Your task to perform on an android device: Go to location settings Image 0: 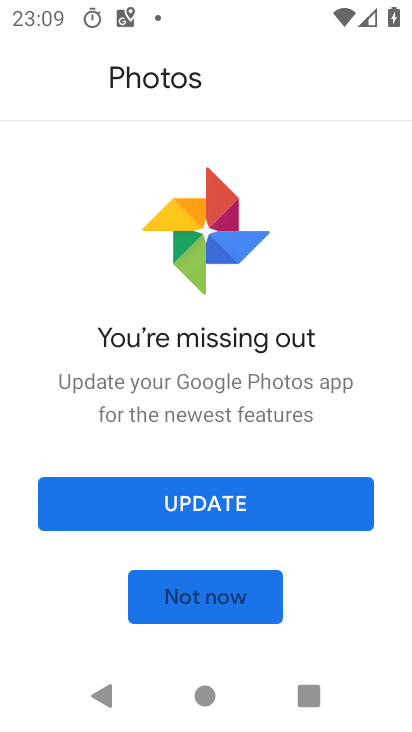
Step 0: press back button
Your task to perform on an android device: Go to location settings Image 1: 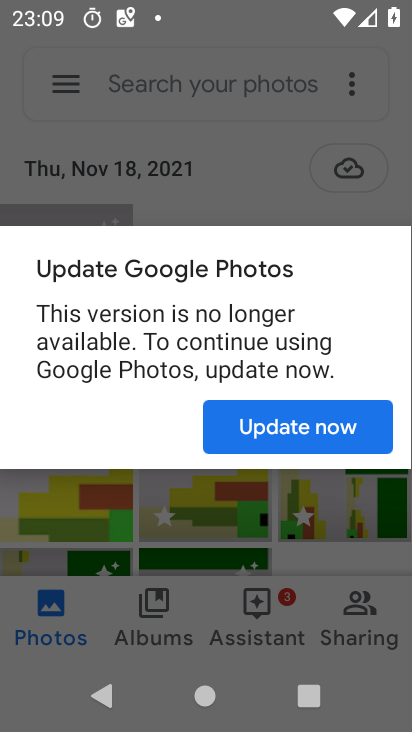
Step 1: click (297, 422)
Your task to perform on an android device: Go to location settings Image 2: 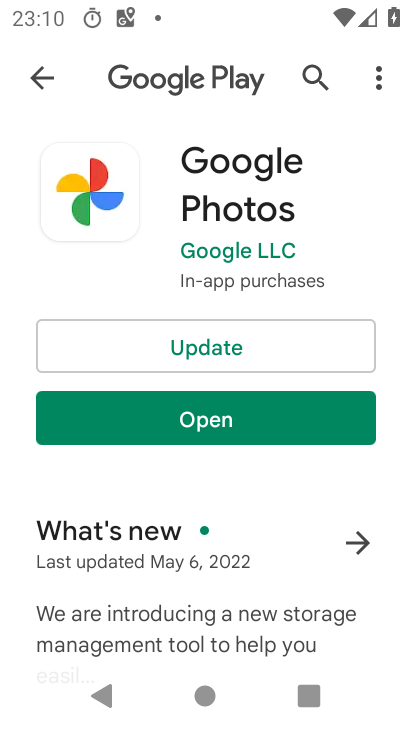
Step 2: click (218, 345)
Your task to perform on an android device: Go to location settings Image 3: 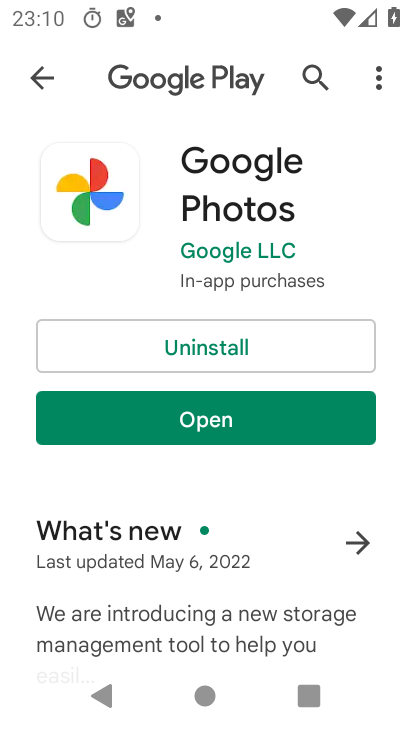
Step 3: press home button
Your task to perform on an android device: Go to location settings Image 4: 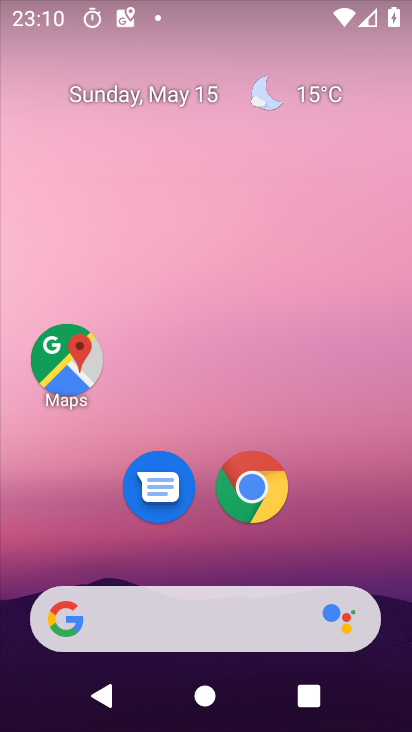
Step 4: click (371, 303)
Your task to perform on an android device: Go to location settings Image 5: 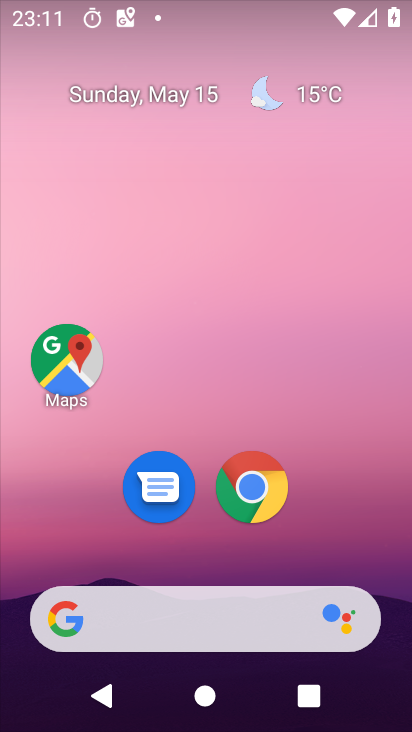
Step 5: drag from (400, 649) to (360, 312)
Your task to perform on an android device: Go to location settings Image 6: 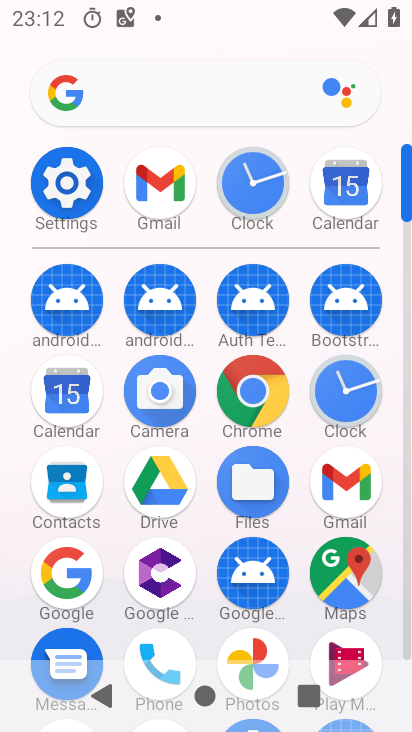
Step 6: click (64, 189)
Your task to perform on an android device: Go to location settings Image 7: 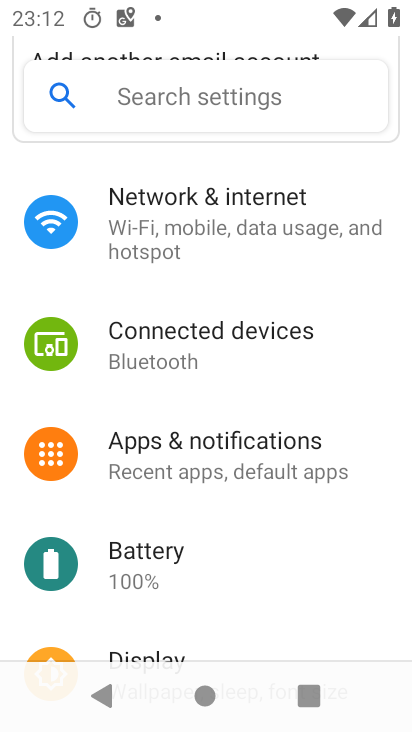
Step 7: drag from (305, 513) to (309, 392)
Your task to perform on an android device: Go to location settings Image 8: 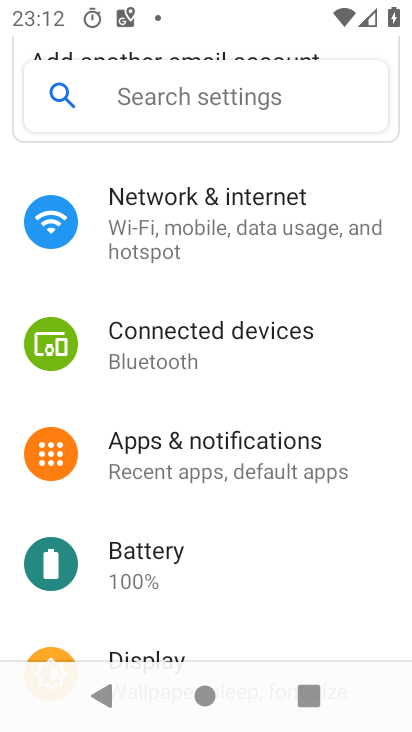
Step 8: drag from (328, 619) to (336, 336)
Your task to perform on an android device: Go to location settings Image 9: 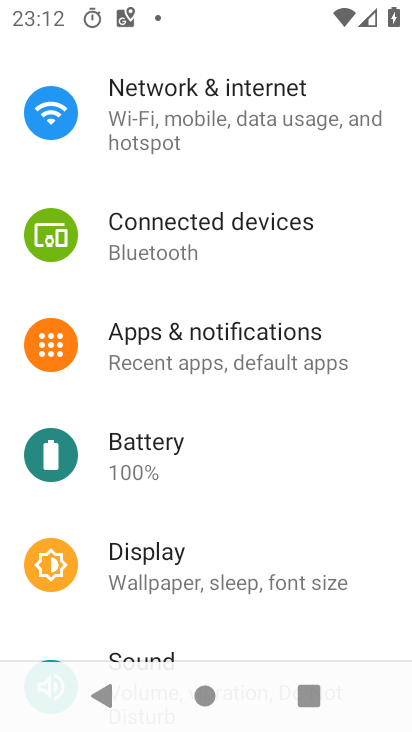
Step 9: drag from (384, 602) to (363, 218)
Your task to perform on an android device: Go to location settings Image 10: 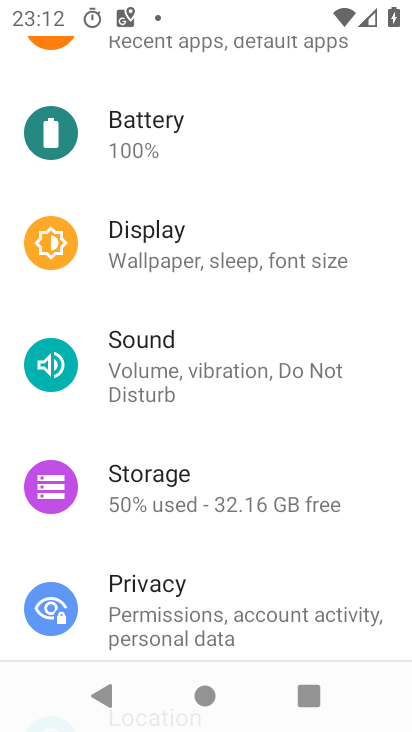
Step 10: drag from (323, 530) to (298, 261)
Your task to perform on an android device: Go to location settings Image 11: 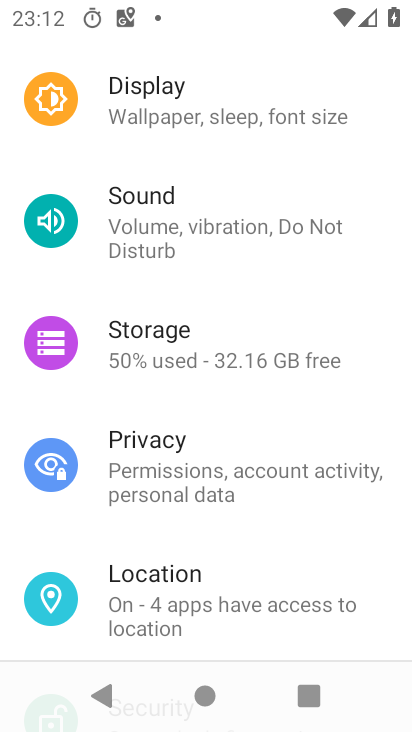
Step 11: drag from (317, 634) to (288, 357)
Your task to perform on an android device: Go to location settings Image 12: 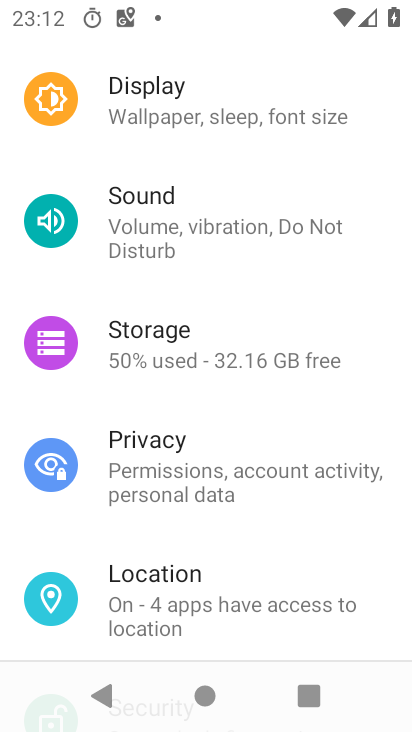
Step 12: click (155, 595)
Your task to perform on an android device: Go to location settings Image 13: 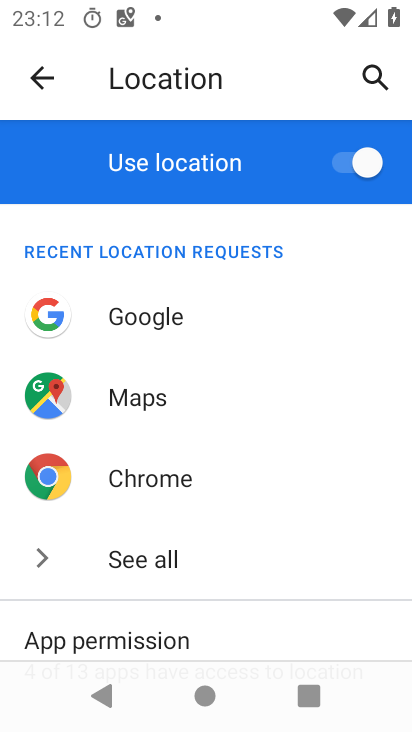
Step 13: task complete